Your task to perform on an android device: Clear all items from cart on bestbuy. Add "logitech g903" to the cart on bestbuy Image 0: 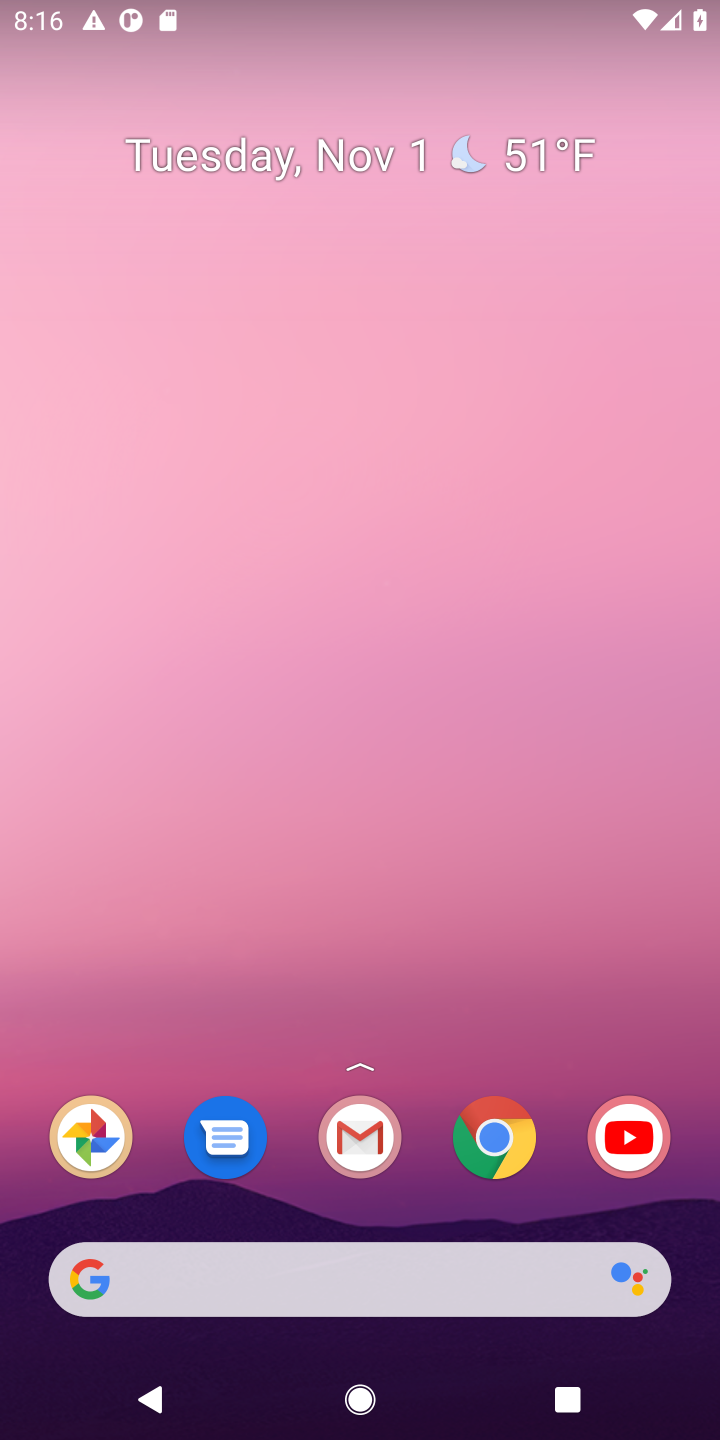
Step 0: click (499, 1142)
Your task to perform on an android device: Clear all items from cart on bestbuy. Add "logitech g903" to the cart on bestbuy Image 1: 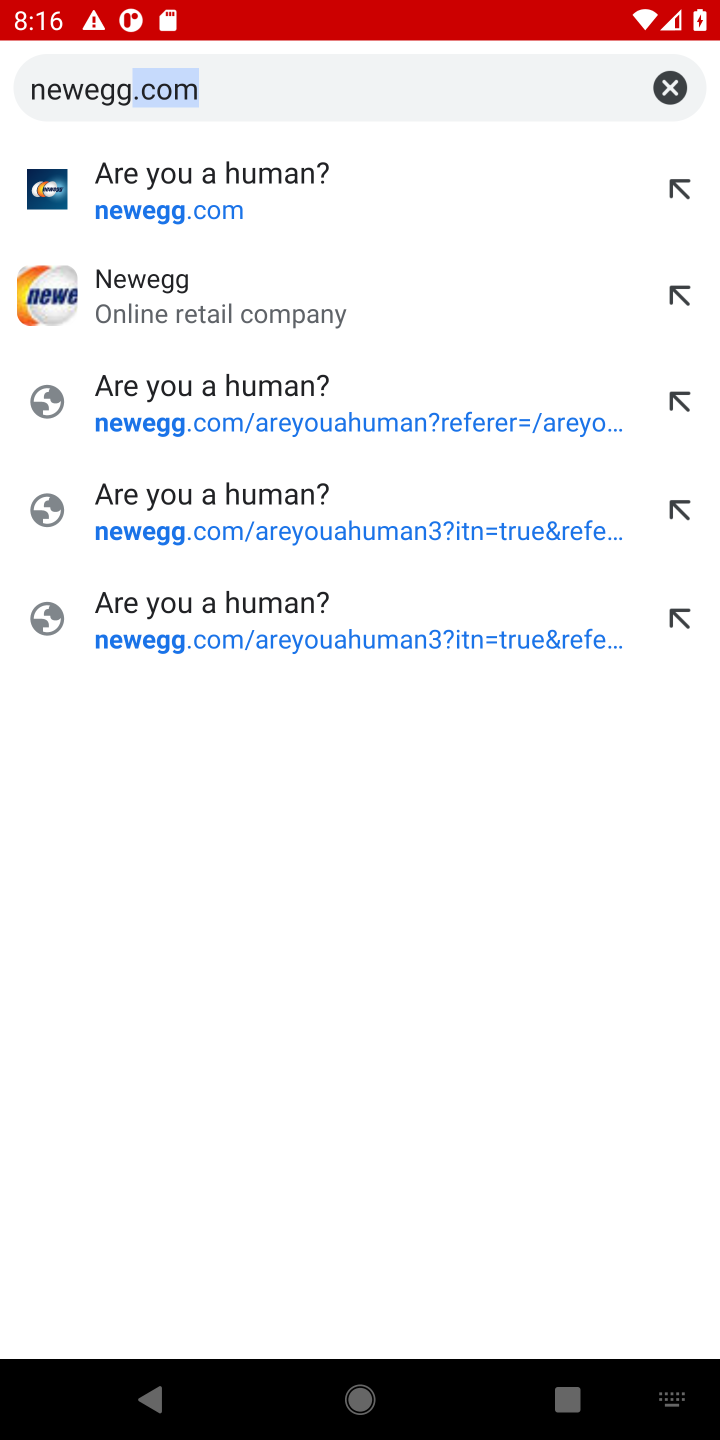
Step 1: click (668, 83)
Your task to perform on an android device: Clear all items from cart on bestbuy. Add "logitech g903" to the cart on bestbuy Image 2: 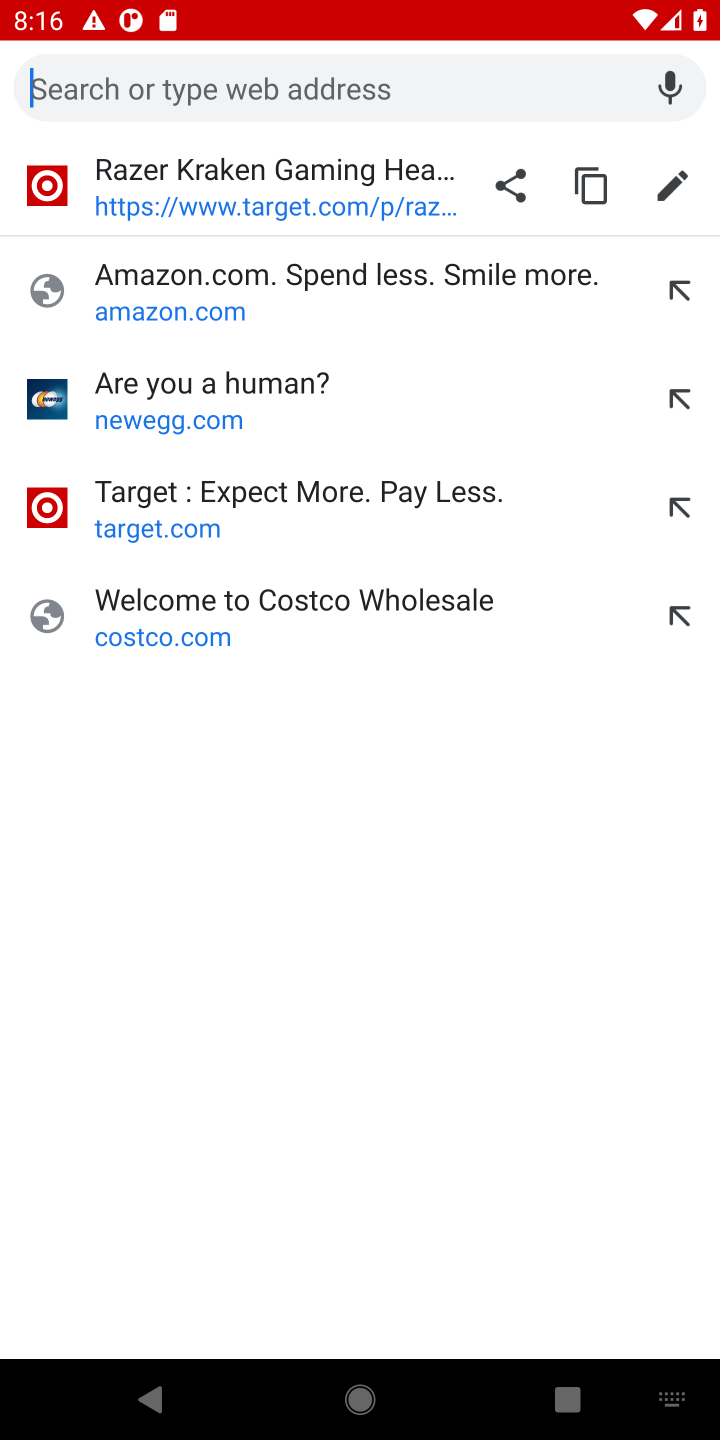
Step 2: press enter
Your task to perform on an android device: Clear all items from cart on bestbuy. Add "logitech g903" to the cart on bestbuy Image 3: 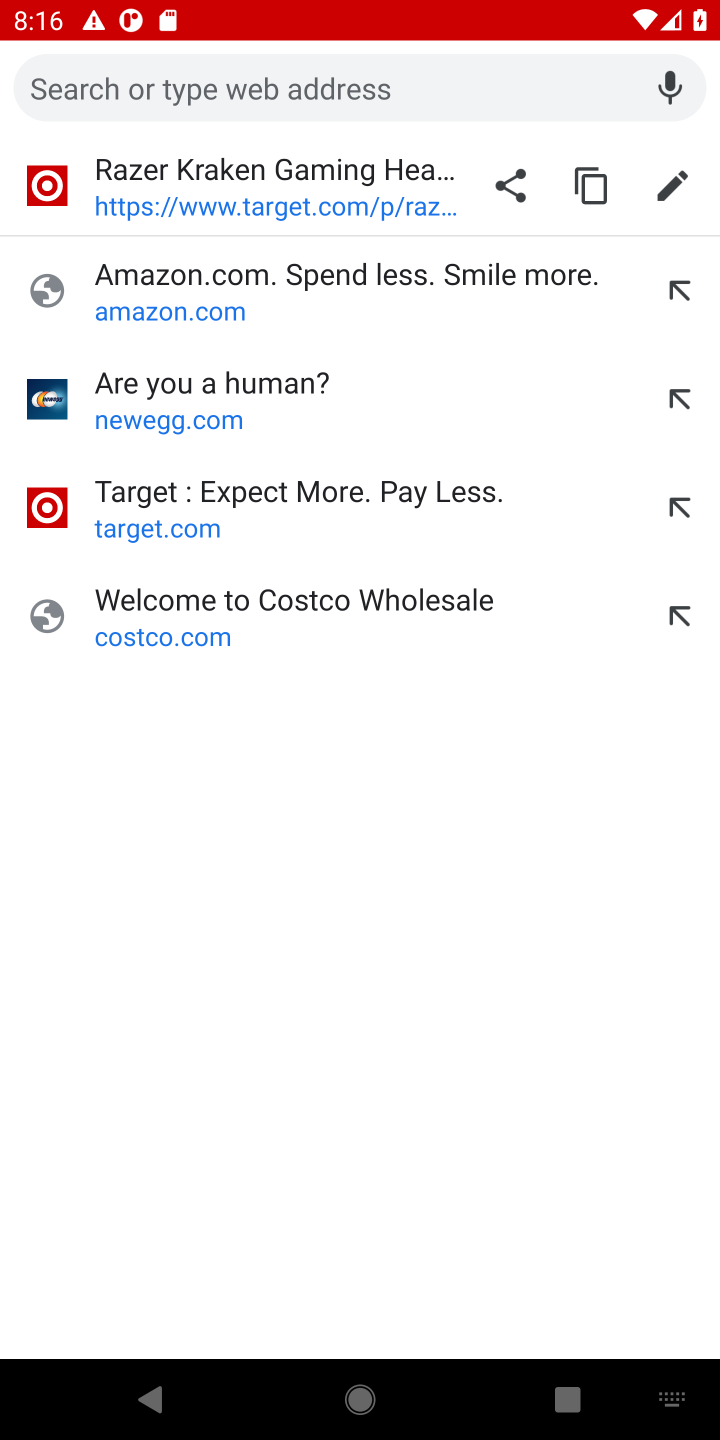
Step 3: type "bestbuy"
Your task to perform on an android device: Clear all items from cart on bestbuy. Add "logitech g903" to the cart on bestbuy Image 4: 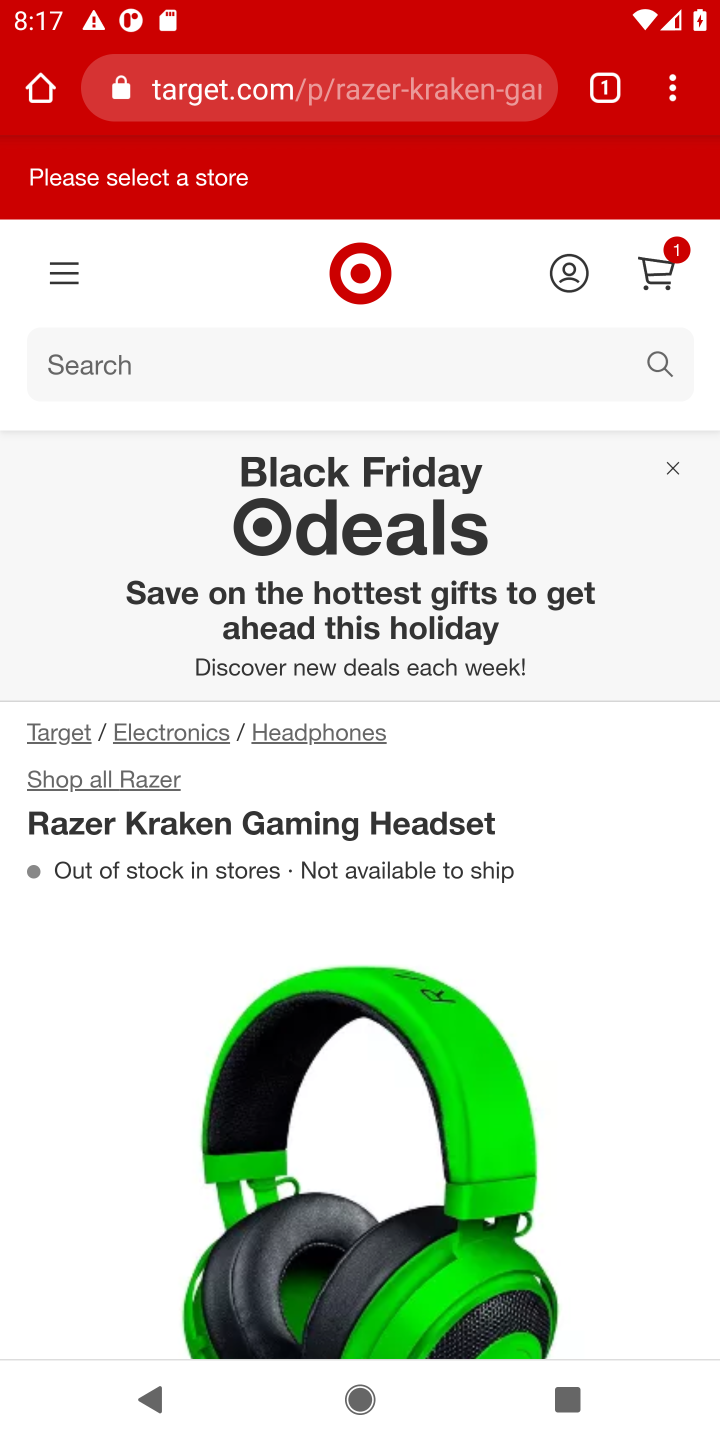
Step 4: click (352, 367)
Your task to perform on an android device: Clear all items from cart on bestbuy. Add "logitech g903" to the cart on bestbuy Image 5: 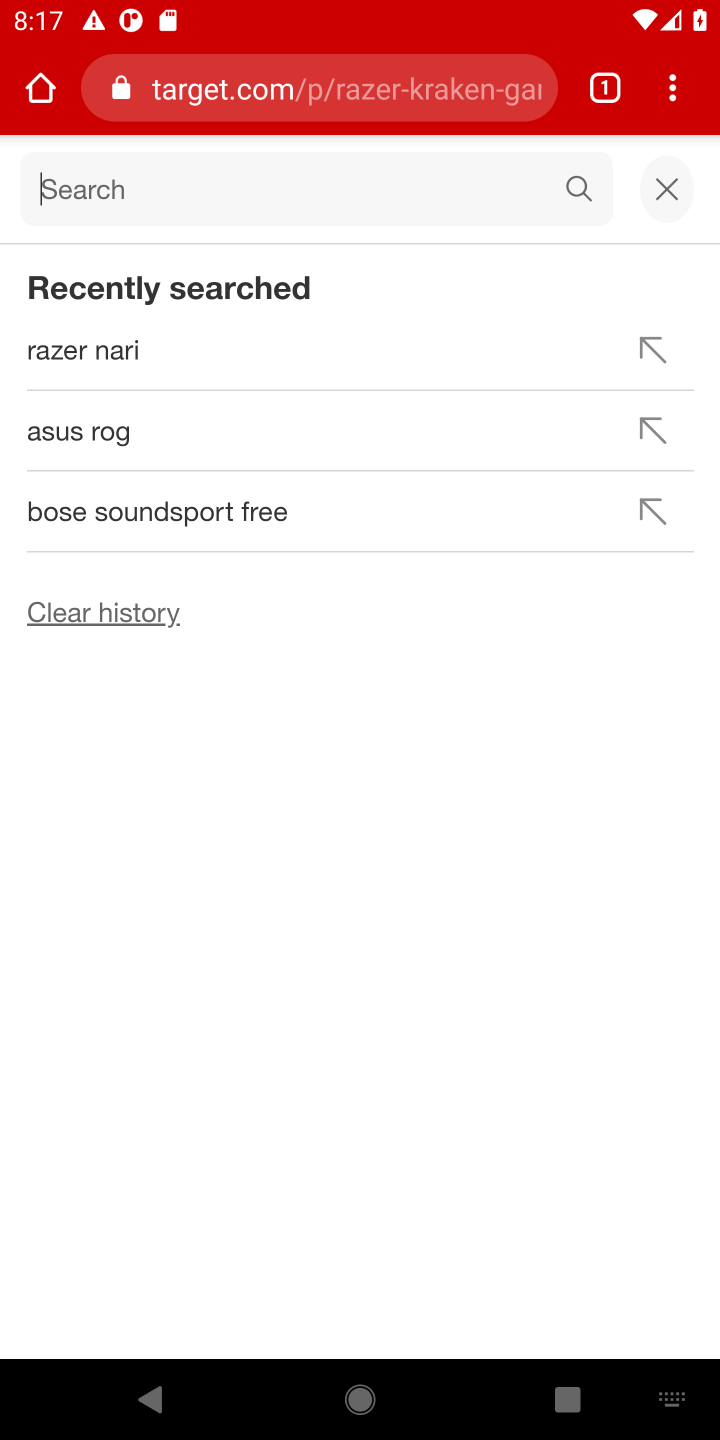
Step 5: type "logitech g903"
Your task to perform on an android device: Clear all items from cart on bestbuy. Add "logitech g903" to the cart on bestbuy Image 6: 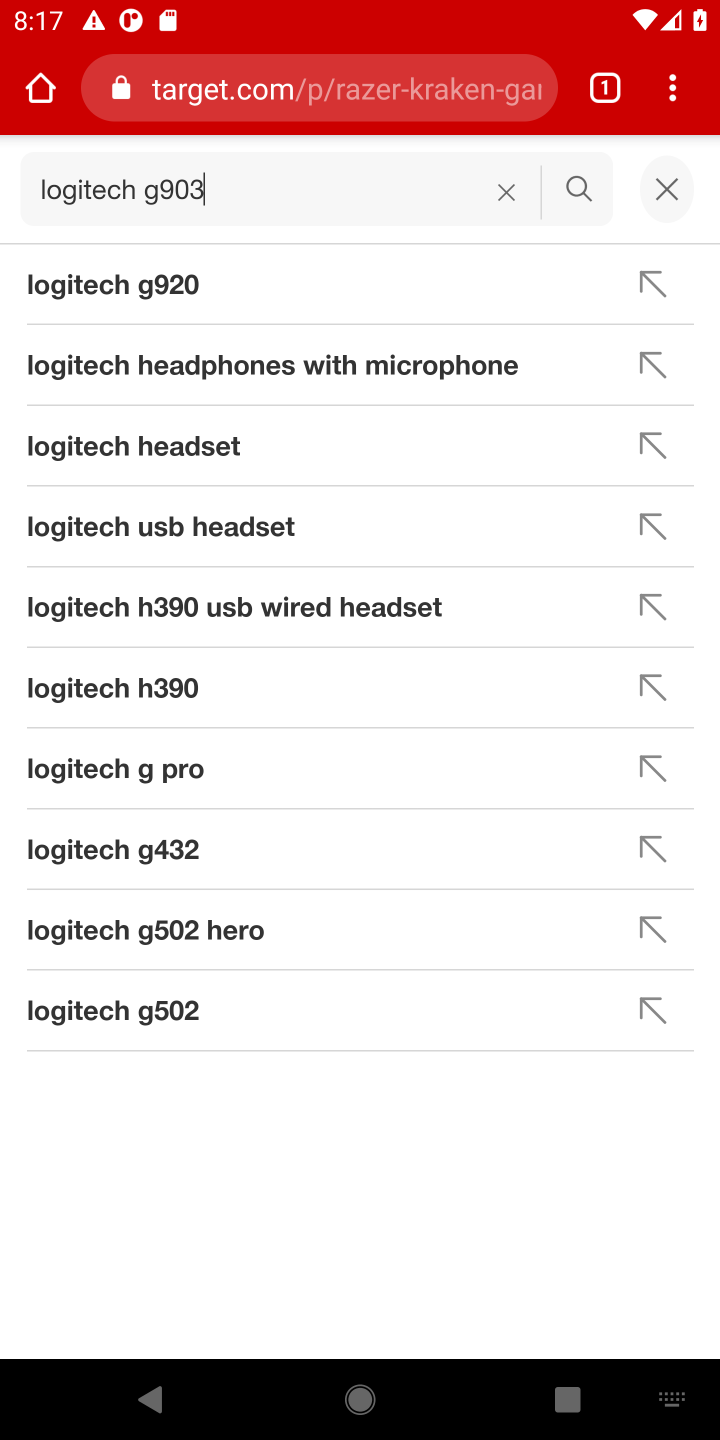
Step 6: press enter
Your task to perform on an android device: Clear all items from cart on bestbuy. Add "logitech g903" to the cart on bestbuy Image 7: 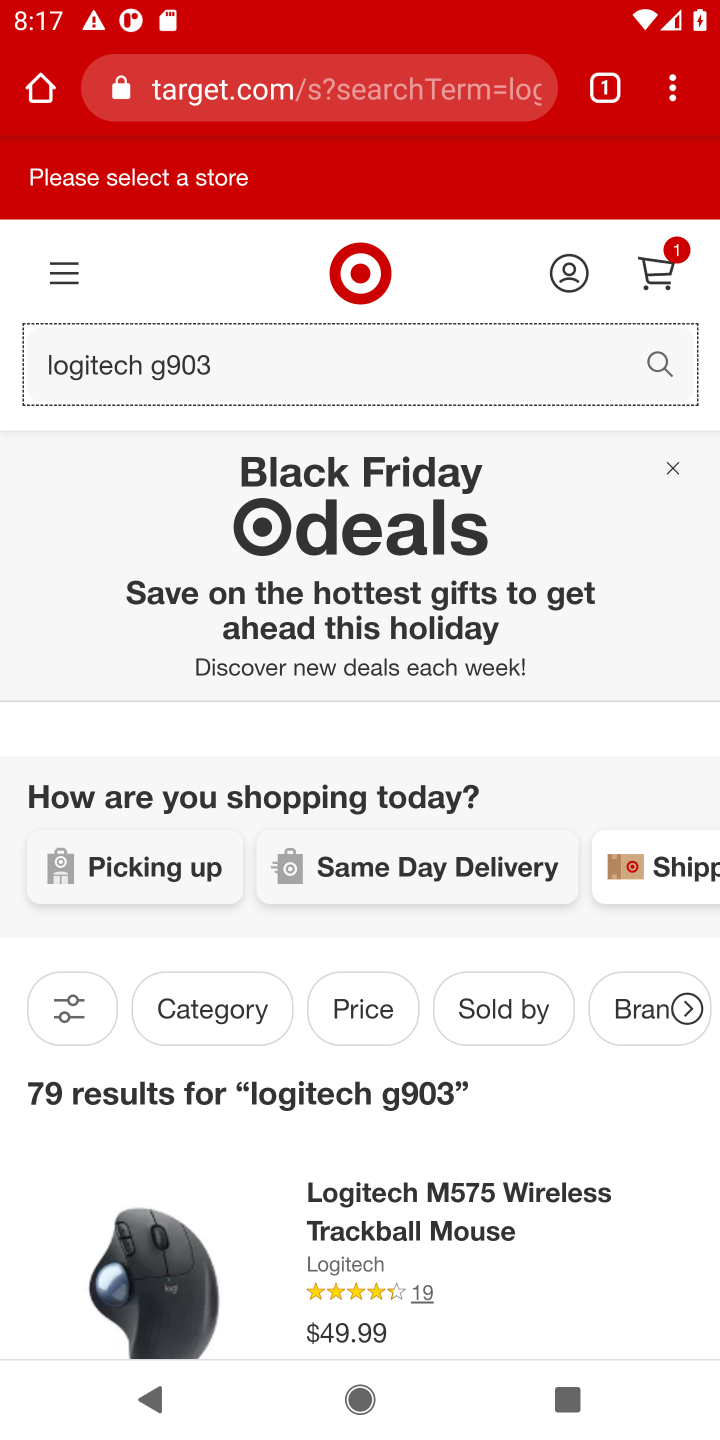
Step 7: task complete